Your task to perform on an android device: Open wifi settings Image 0: 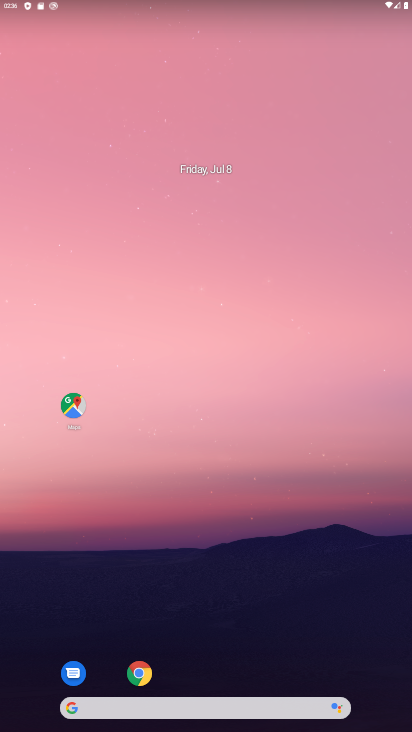
Step 0: drag from (320, 8) to (304, 532)
Your task to perform on an android device: Open wifi settings Image 1: 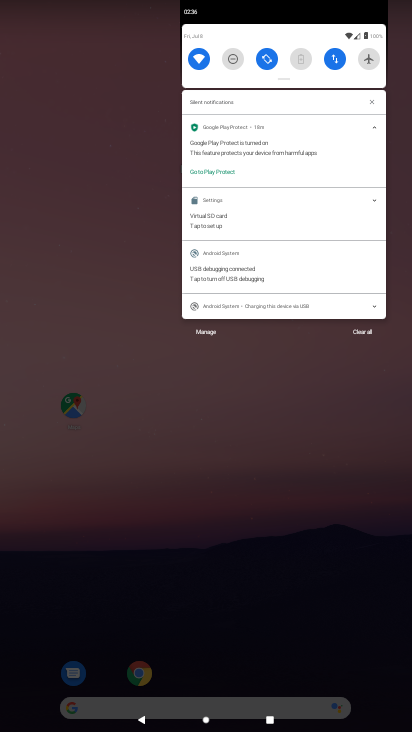
Step 1: click (196, 49)
Your task to perform on an android device: Open wifi settings Image 2: 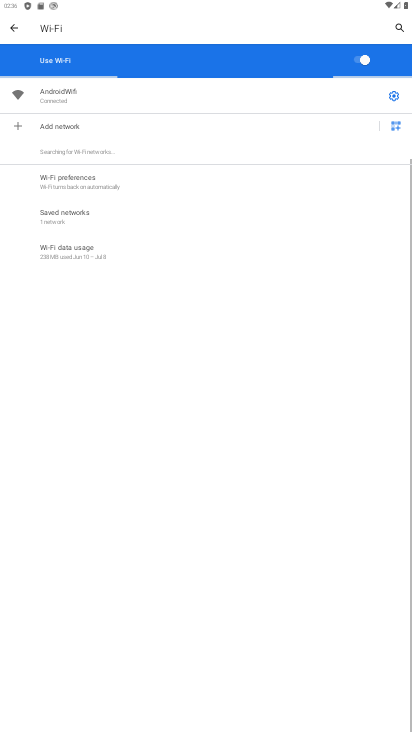
Step 2: task complete